Your task to perform on an android device: turn off airplane mode Image 0: 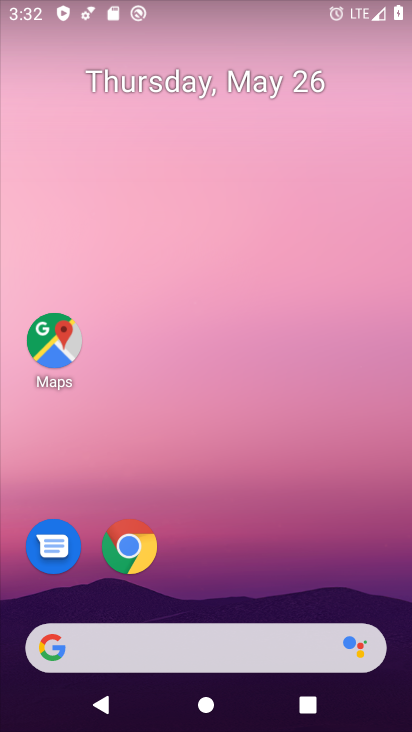
Step 0: drag from (274, 581) to (282, 14)
Your task to perform on an android device: turn off airplane mode Image 1: 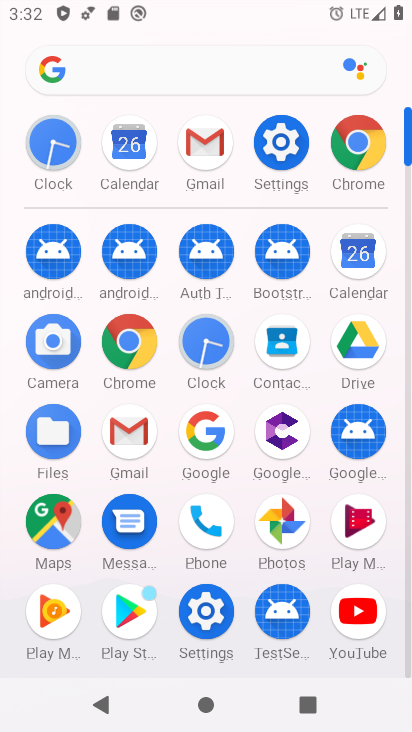
Step 1: task complete